Your task to perform on an android device: turn on bluetooth scan Image 0: 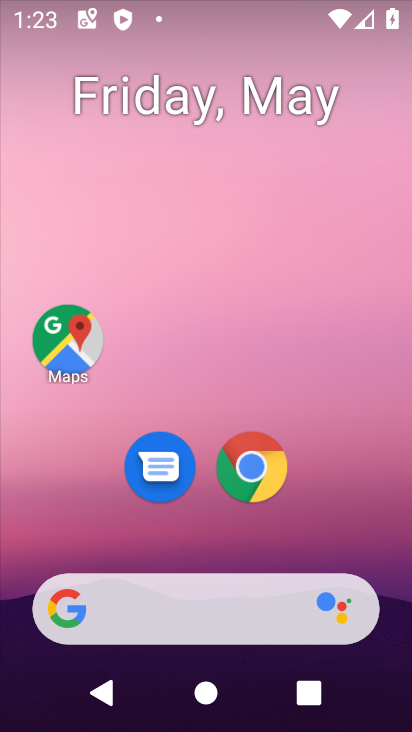
Step 0: drag from (353, 544) to (311, 38)
Your task to perform on an android device: turn on bluetooth scan Image 1: 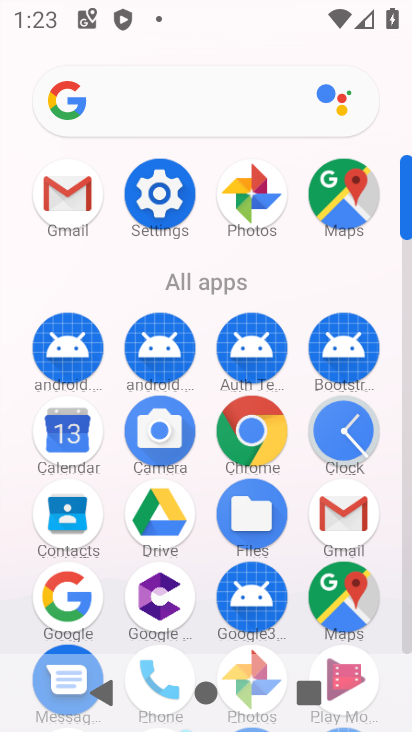
Step 1: click (148, 211)
Your task to perform on an android device: turn on bluetooth scan Image 2: 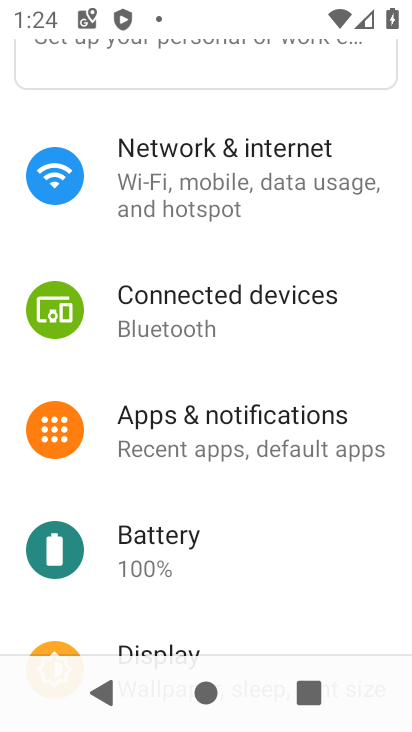
Step 2: drag from (209, 528) to (209, 203)
Your task to perform on an android device: turn on bluetooth scan Image 3: 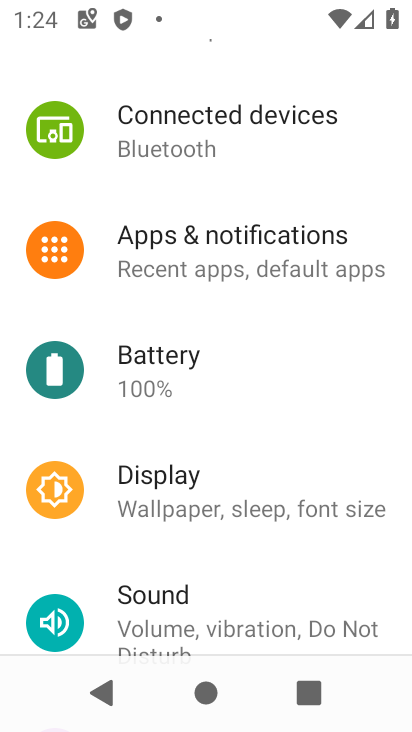
Step 3: drag from (222, 508) to (188, 147)
Your task to perform on an android device: turn on bluetooth scan Image 4: 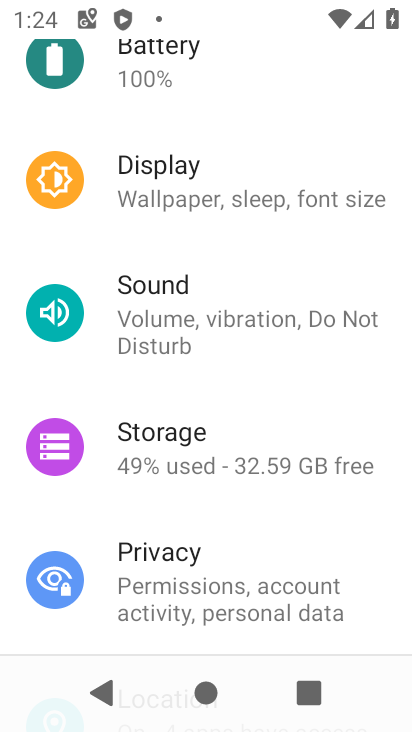
Step 4: drag from (180, 476) to (136, 89)
Your task to perform on an android device: turn on bluetooth scan Image 5: 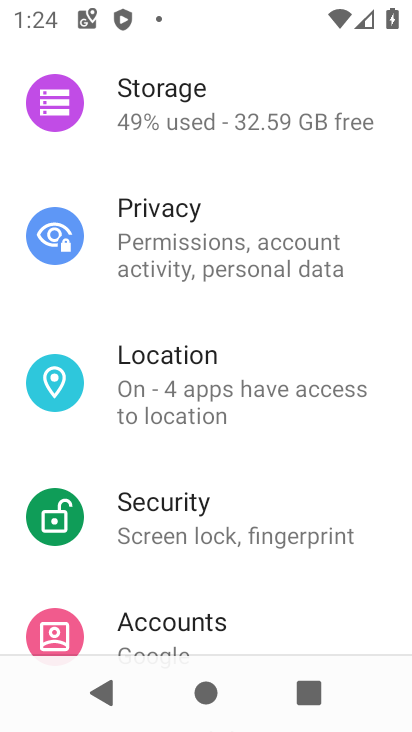
Step 5: click (145, 380)
Your task to perform on an android device: turn on bluetooth scan Image 6: 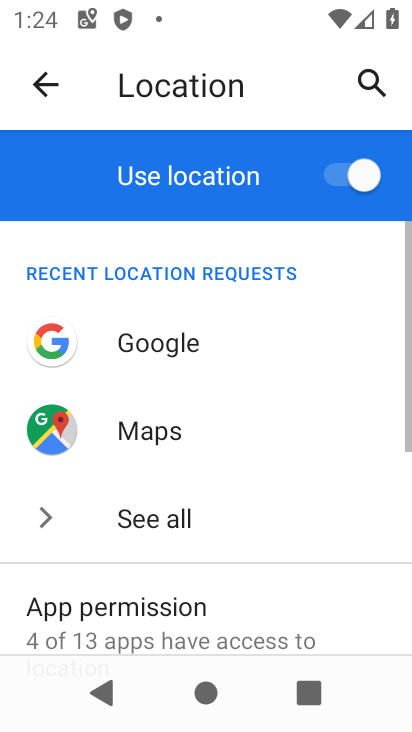
Step 6: drag from (199, 569) to (123, 207)
Your task to perform on an android device: turn on bluetooth scan Image 7: 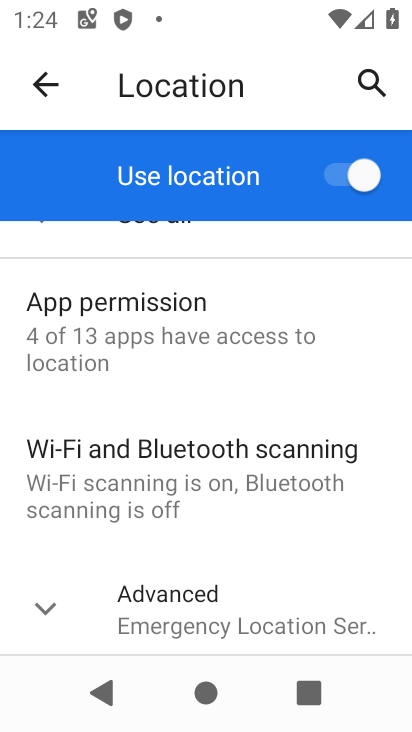
Step 7: drag from (180, 369) to (138, 192)
Your task to perform on an android device: turn on bluetooth scan Image 8: 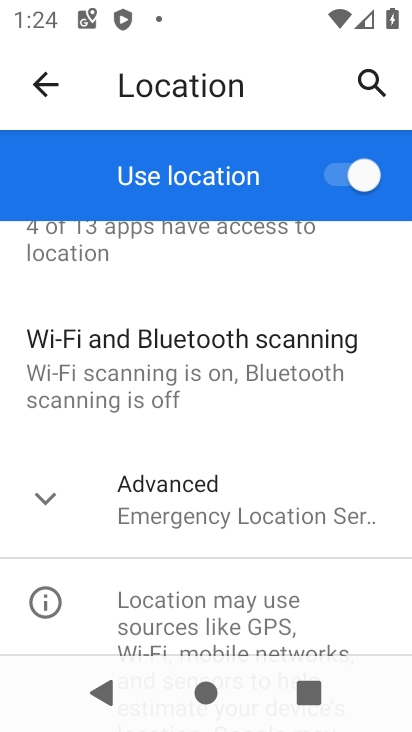
Step 8: click (202, 397)
Your task to perform on an android device: turn on bluetooth scan Image 9: 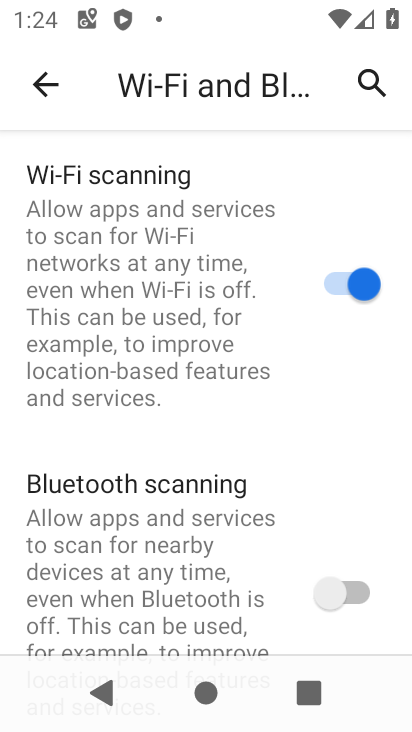
Step 9: drag from (228, 546) to (187, 215)
Your task to perform on an android device: turn on bluetooth scan Image 10: 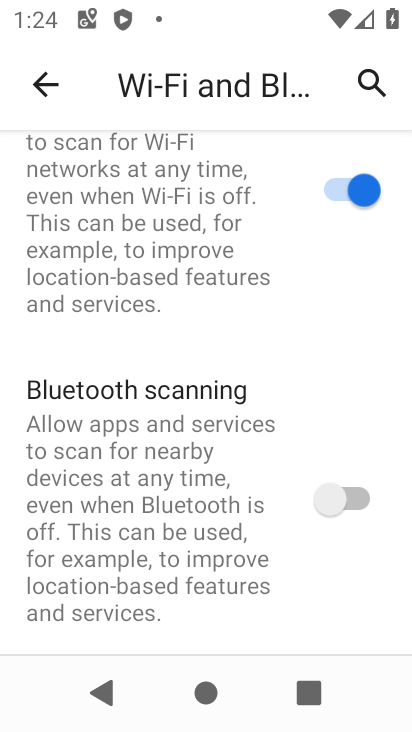
Step 10: click (345, 494)
Your task to perform on an android device: turn on bluetooth scan Image 11: 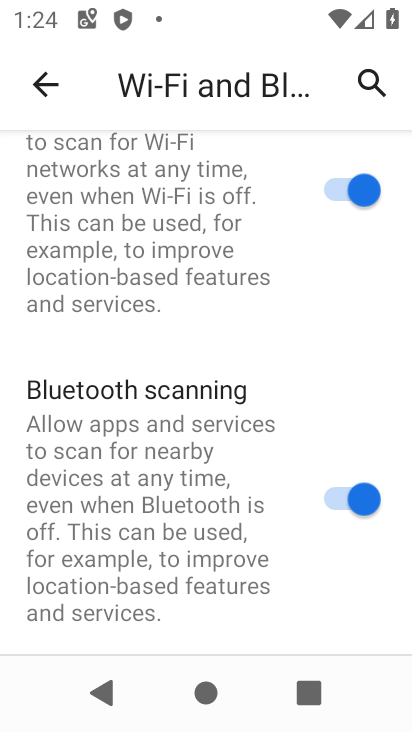
Step 11: task complete